Your task to perform on an android device: turn off wifi Image 0: 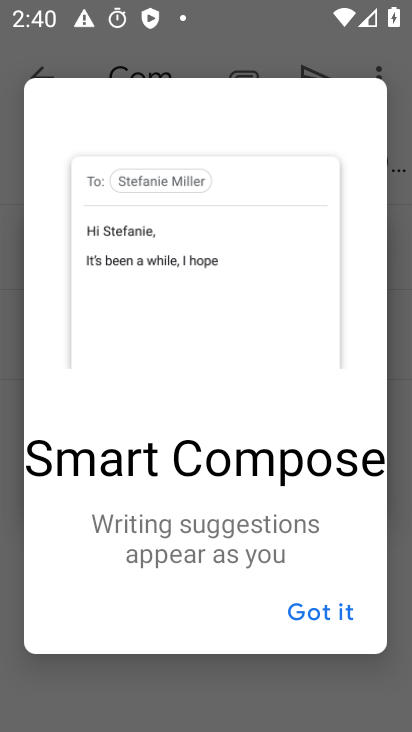
Step 0: press home button
Your task to perform on an android device: turn off wifi Image 1: 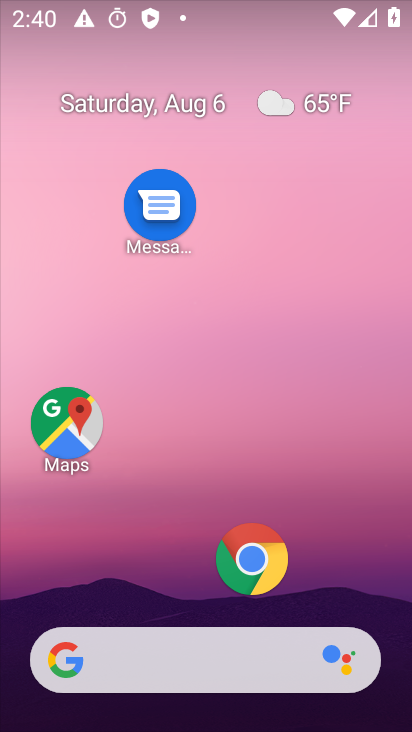
Step 1: drag from (189, 585) to (153, 22)
Your task to perform on an android device: turn off wifi Image 2: 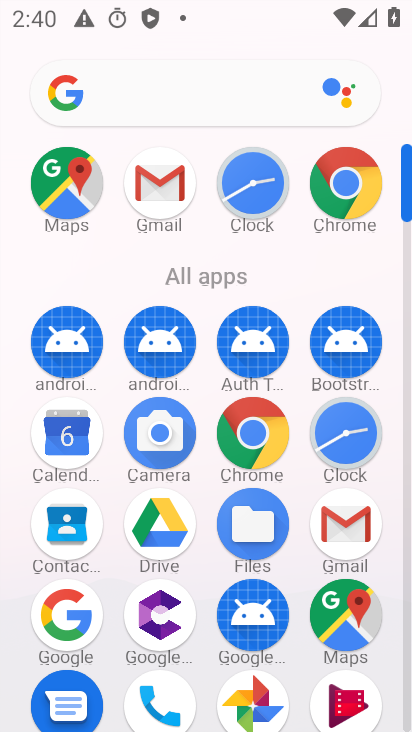
Step 2: drag from (217, 634) to (253, 59)
Your task to perform on an android device: turn off wifi Image 3: 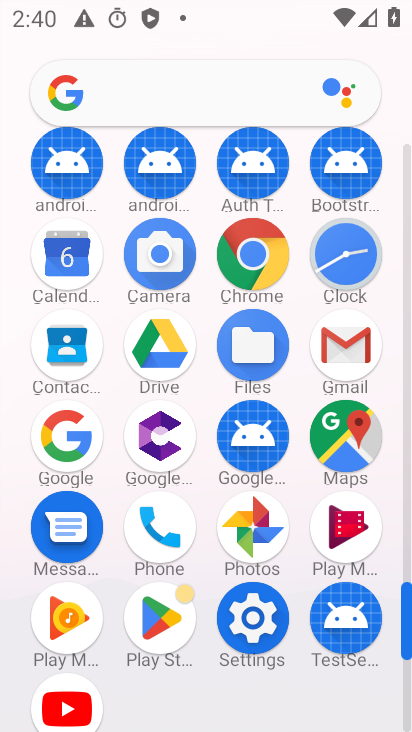
Step 3: click (256, 617)
Your task to perform on an android device: turn off wifi Image 4: 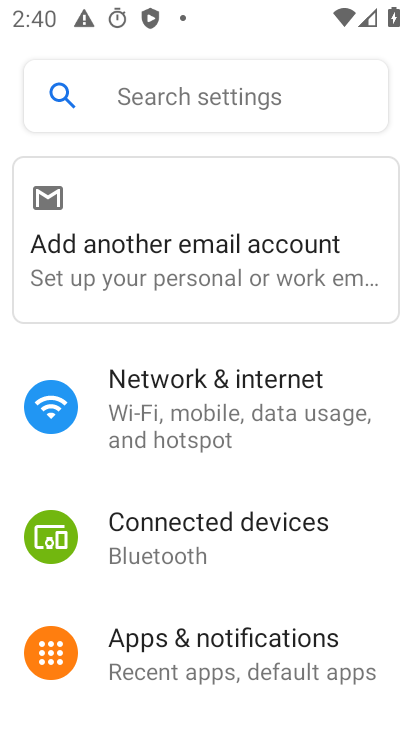
Step 4: click (276, 229)
Your task to perform on an android device: turn off wifi Image 5: 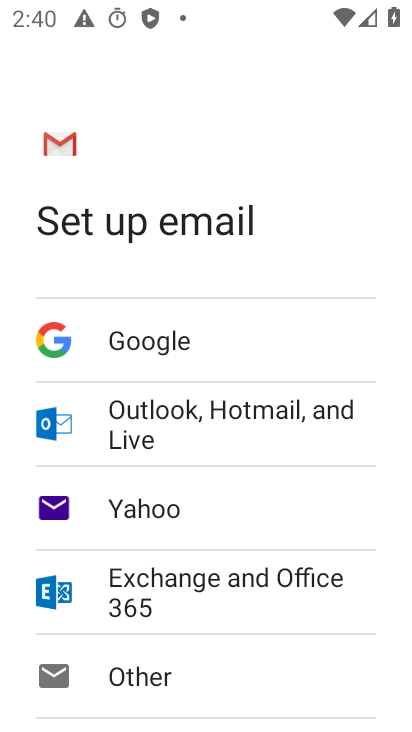
Step 5: press back button
Your task to perform on an android device: turn off wifi Image 6: 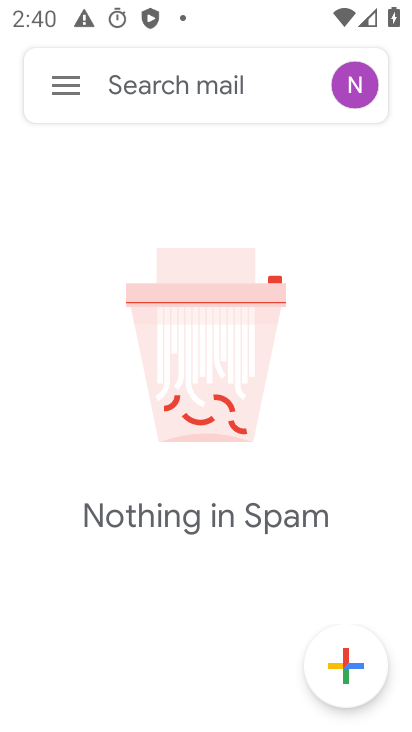
Step 6: press back button
Your task to perform on an android device: turn off wifi Image 7: 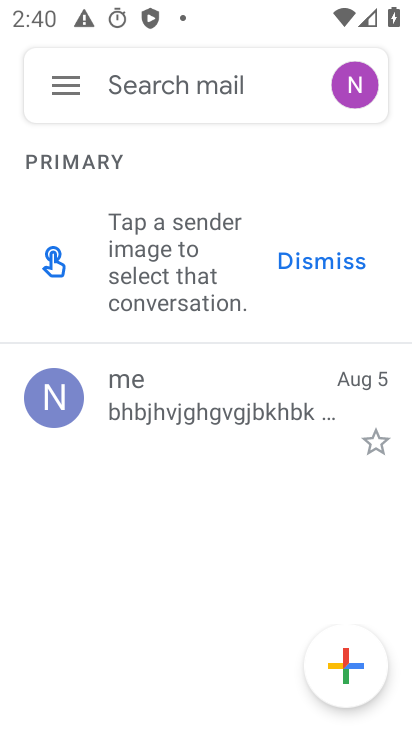
Step 7: press back button
Your task to perform on an android device: turn off wifi Image 8: 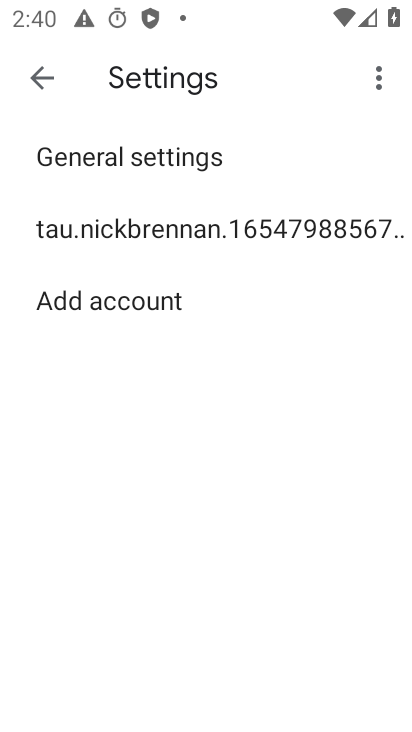
Step 8: press back button
Your task to perform on an android device: turn off wifi Image 9: 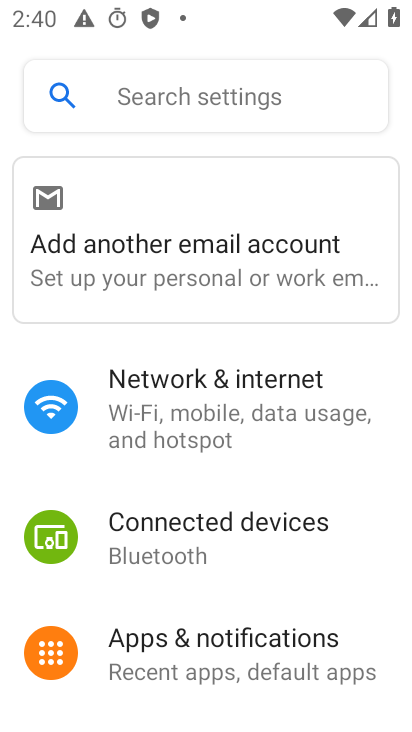
Step 9: click (192, 426)
Your task to perform on an android device: turn off wifi Image 10: 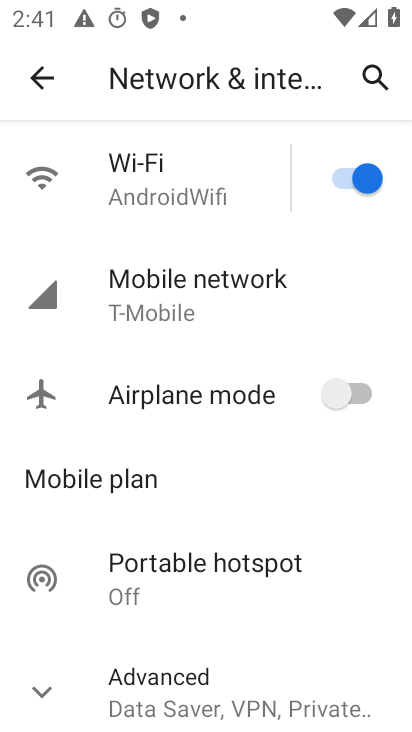
Step 10: click (346, 183)
Your task to perform on an android device: turn off wifi Image 11: 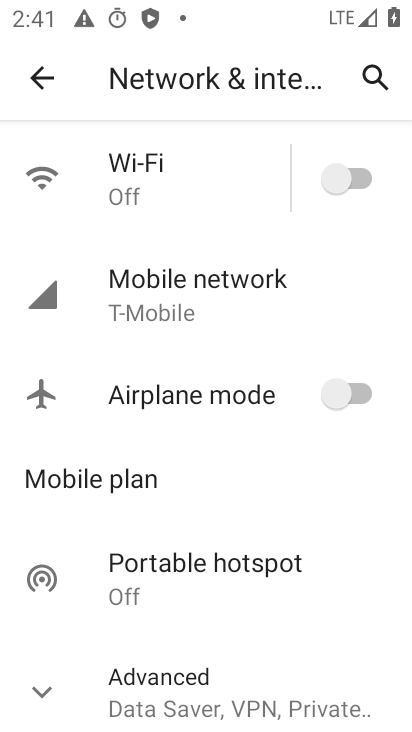
Step 11: task complete